Your task to perform on an android device: open a new tab in the chrome app Image 0: 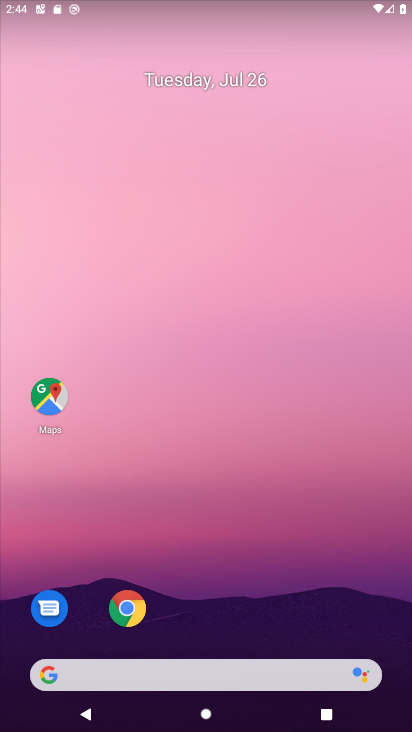
Step 0: click (142, 609)
Your task to perform on an android device: open a new tab in the chrome app Image 1: 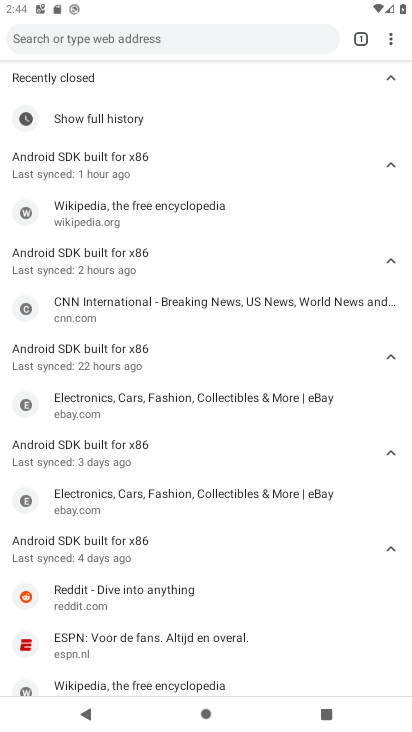
Step 1: click (388, 37)
Your task to perform on an android device: open a new tab in the chrome app Image 2: 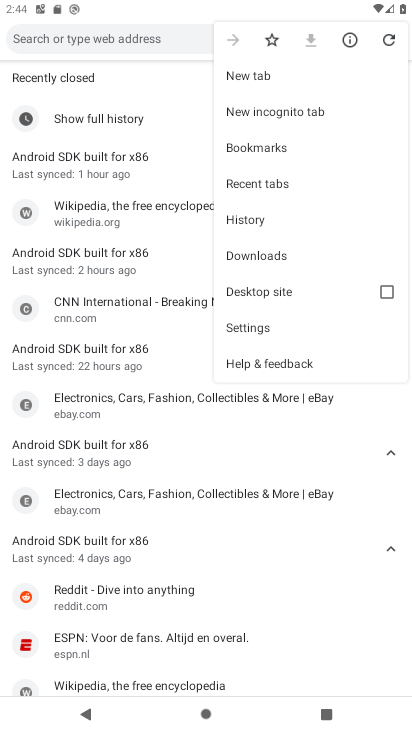
Step 2: click (279, 72)
Your task to perform on an android device: open a new tab in the chrome app Image 3: 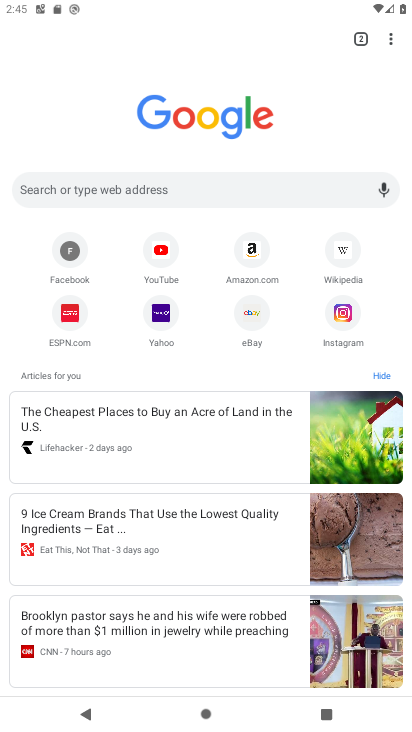
Step 3: task complete